Your task to perform on an android device: toggle improve location accuracy Image 0: 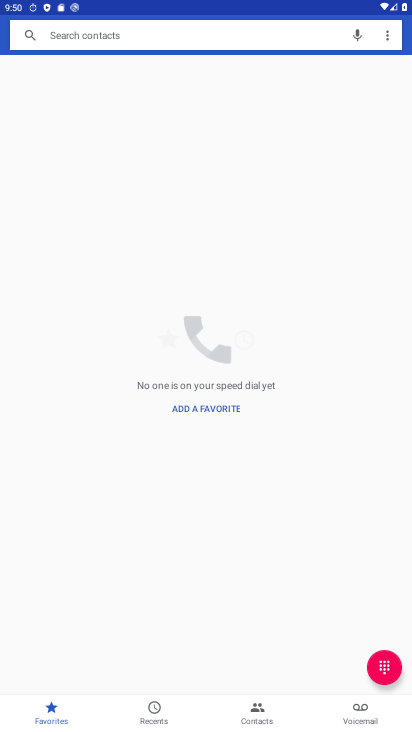
Step 0: press home button
Your task to perform on an android device: toggle improve location accuracy Image 1: 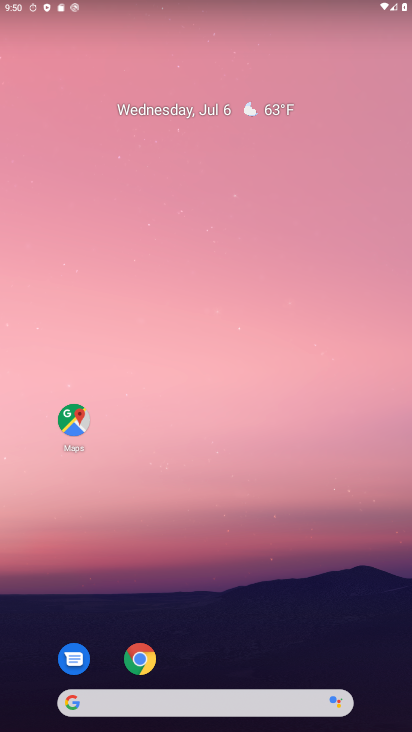
Step 1: drag from (203, 673) to (160, 197)
Your task to perform on an android device: toggle improve location accuracy Image 2: 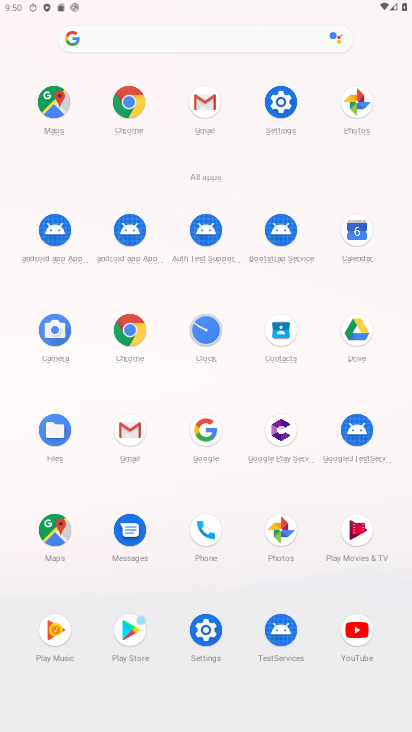
Step 2: click (204, 617)
Your task to perform on an android device: toggle improve location accuracy Image 3: 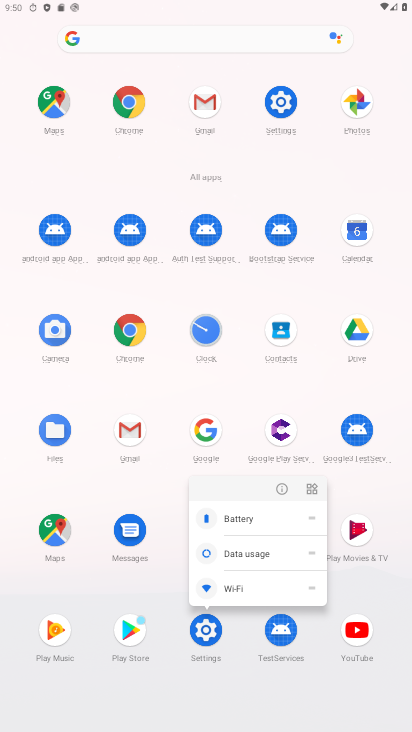
Step 3: click (275, 484)
Your task to perform on an android device: toggle improve location accuracy Image 4: 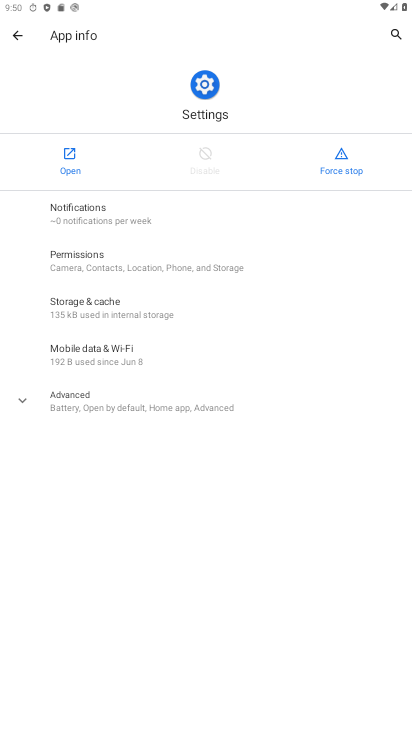
Step 4: click (61, 151)
Your task to perform on an android device: toggle improve location accuracy Image 5: 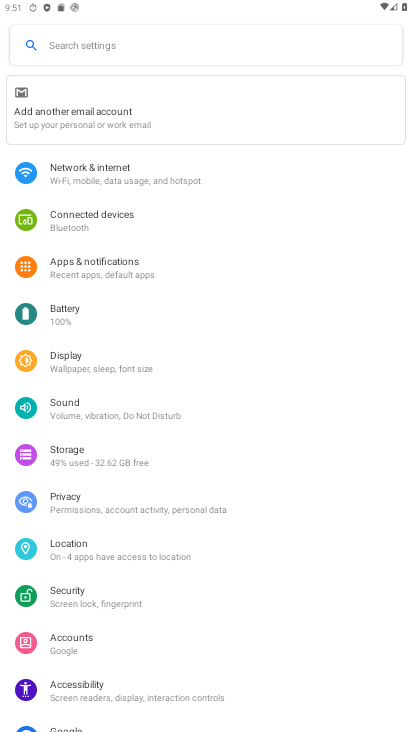
Step 5: click (89, 545)
Your task to perform on an android device: toggle improve location accuracy Image 6: 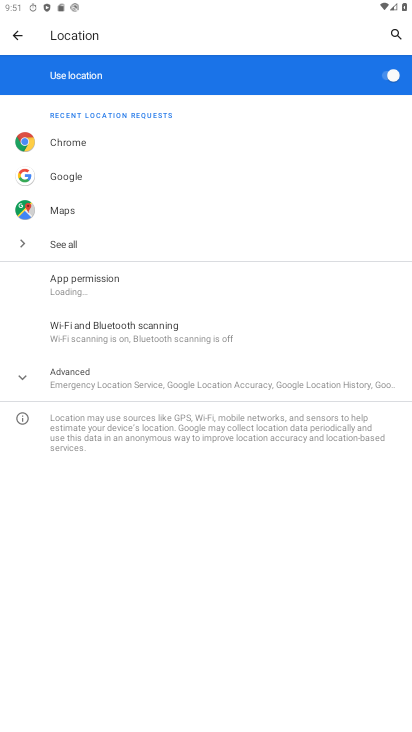
Step 6: click (59, 384)
Your task to perform on an android device: toggle improve location accuracy Image 7: 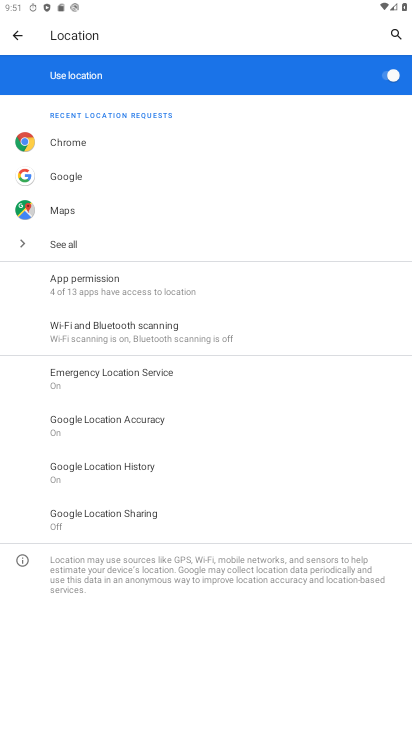
Step 7: drag from (253, 725) to (290, 289)
Your task to perform on an android device: toggle improve location accuracy Image 8: 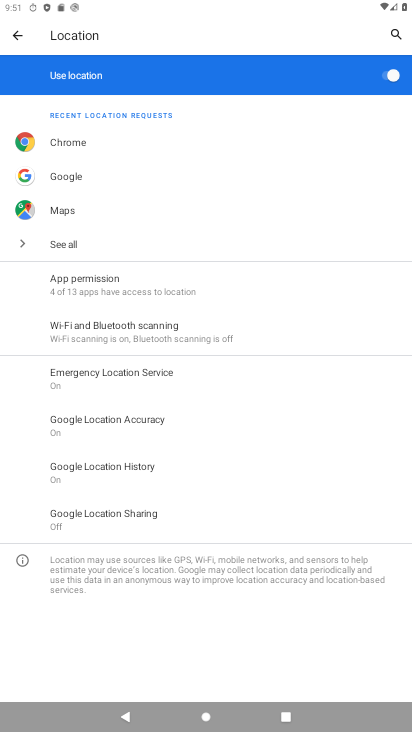
Step 8: click (134, 415)
Your task to perform on an android device: toggle improve location accuracy Image 9: 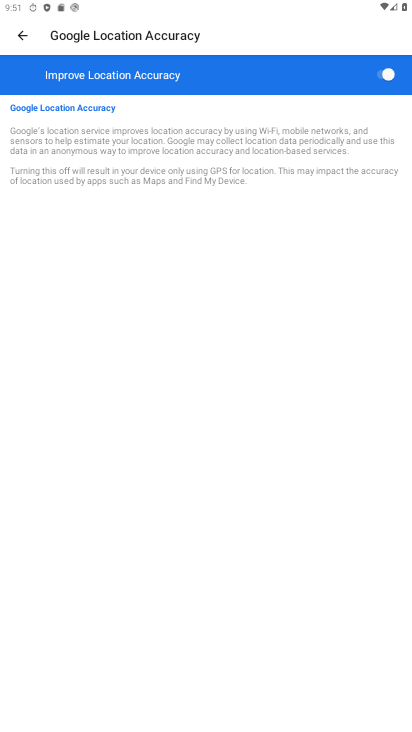
Step 9: click (382, 77)
Your task to perform on an android device: toggle improve location accuracy Image 10: 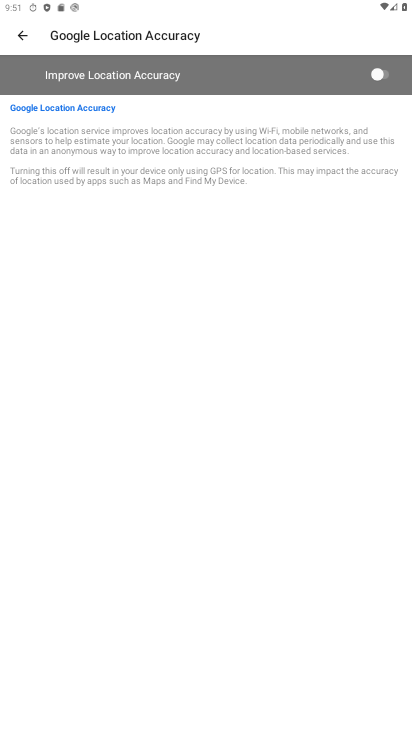
Step 10: task complete